Your task to perform on an android device: clear history in the chrome app Image 0: 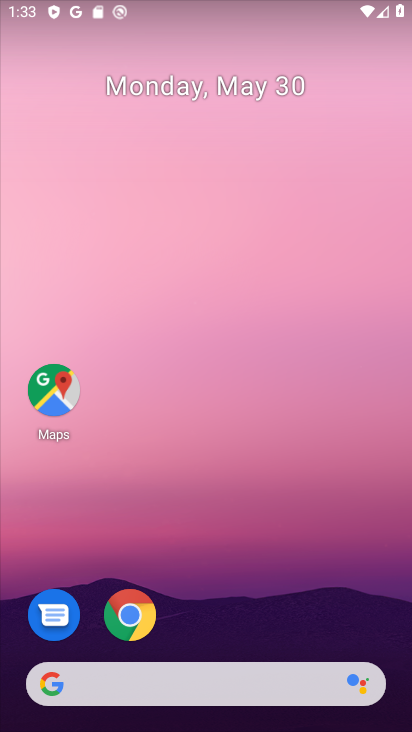
Step 0: click (141, 605)
Your task to perform on an android device: clear history in the chrome app Image 1: 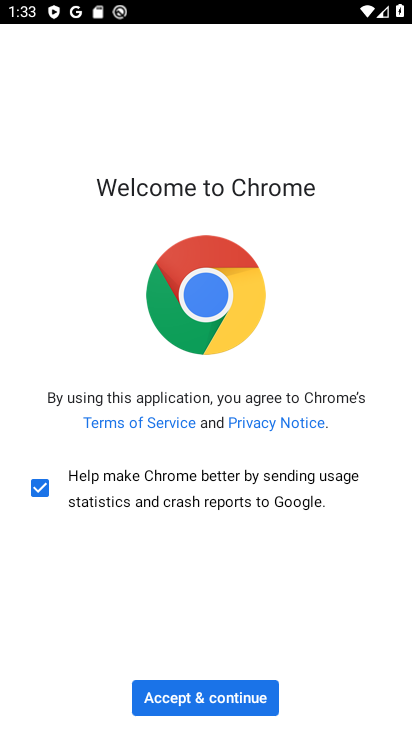
Step 1: click (219, 683)
Your task to perform on an android device: clear history in the chrome app Image 2: 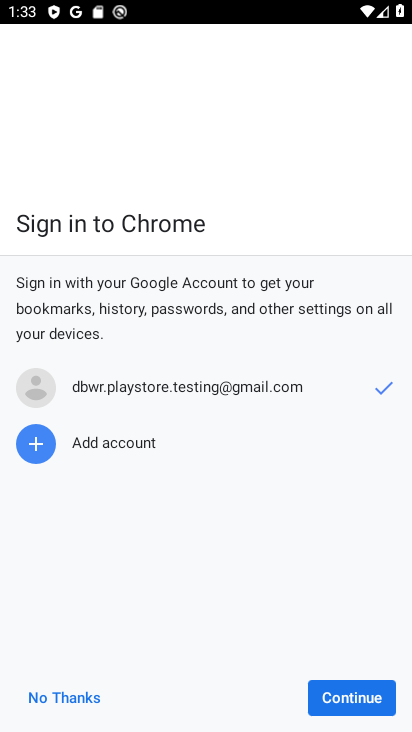
Step 2: click (359, 690)
Your task to perform on an android device: clear history in the chrome app Image 3: 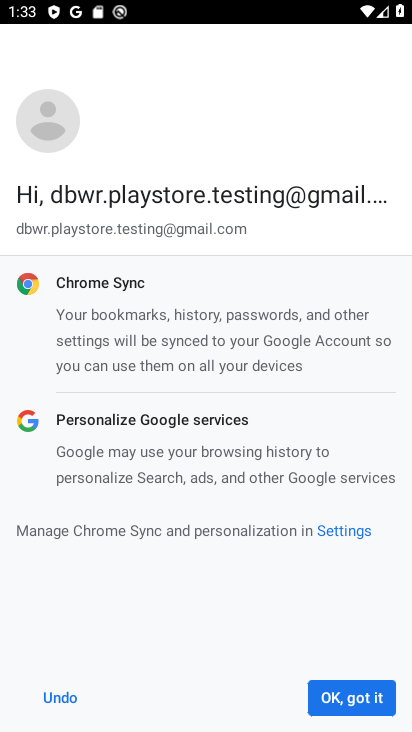
Step 3: click (342, 698)
Your task to perform on an android device: clear history in the chrome app Image 4: 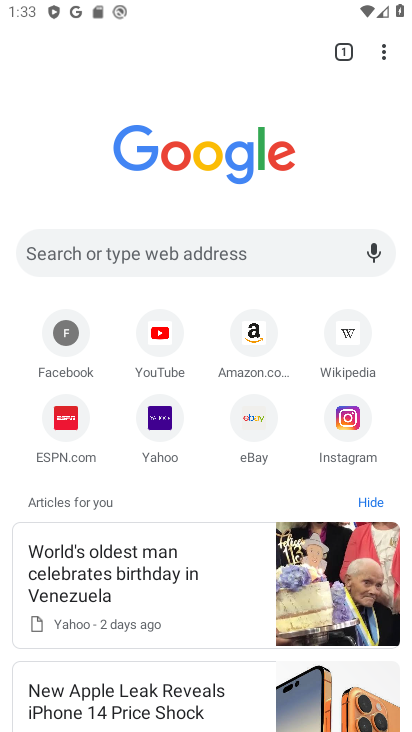
Step 4: click (381, 42)
Your task to perform on an android device: clear history in the chrome app Image 5: 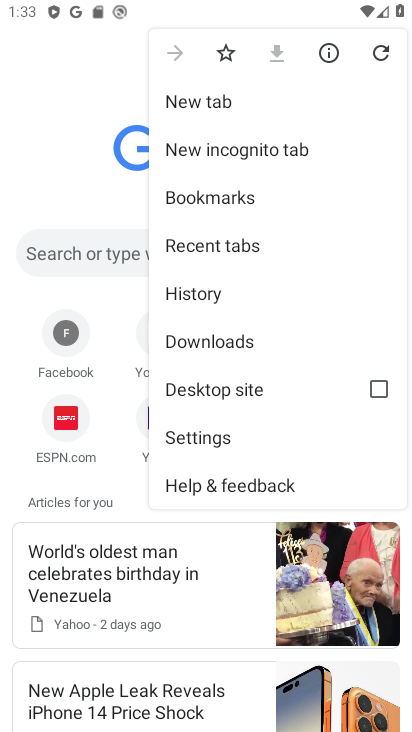
Step 5: click (234, 287)
Your task to perform on an android device: clear history in the chrome app Image 6: 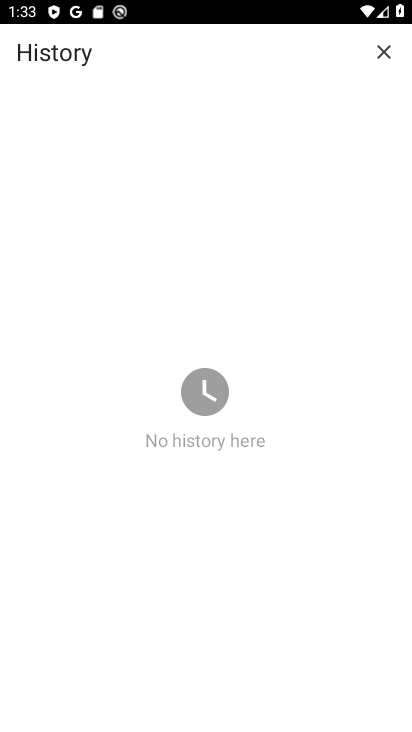
Step 6: task complete